Your task to perform on an android device: turn off smart reply in the gmail app Image 0: 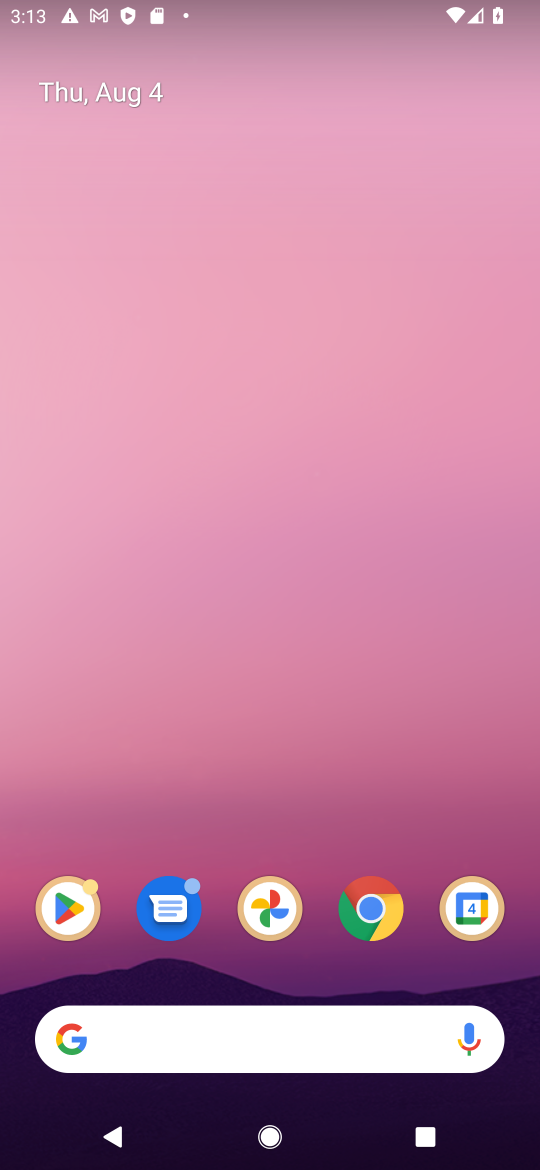
Step 0: drag from (359, 720) to (445, 85)
Your task to perform on an android device: turn off smart reply in the gmail app Image 1: 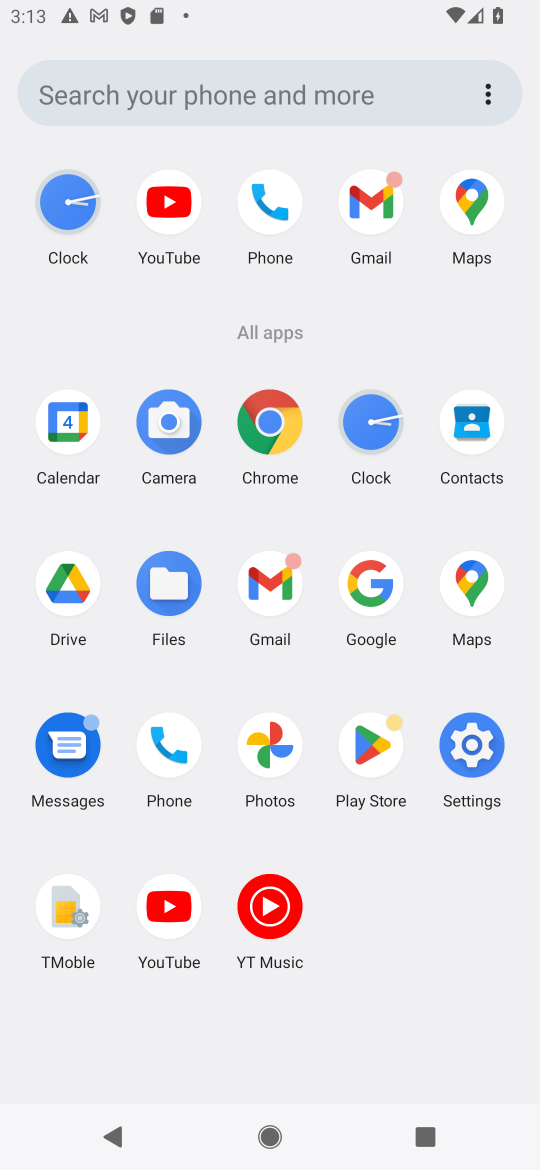
Step 1: click (369, 202)
Your task to perform on an android device: turn off smart reply in the gmail app Image 2: 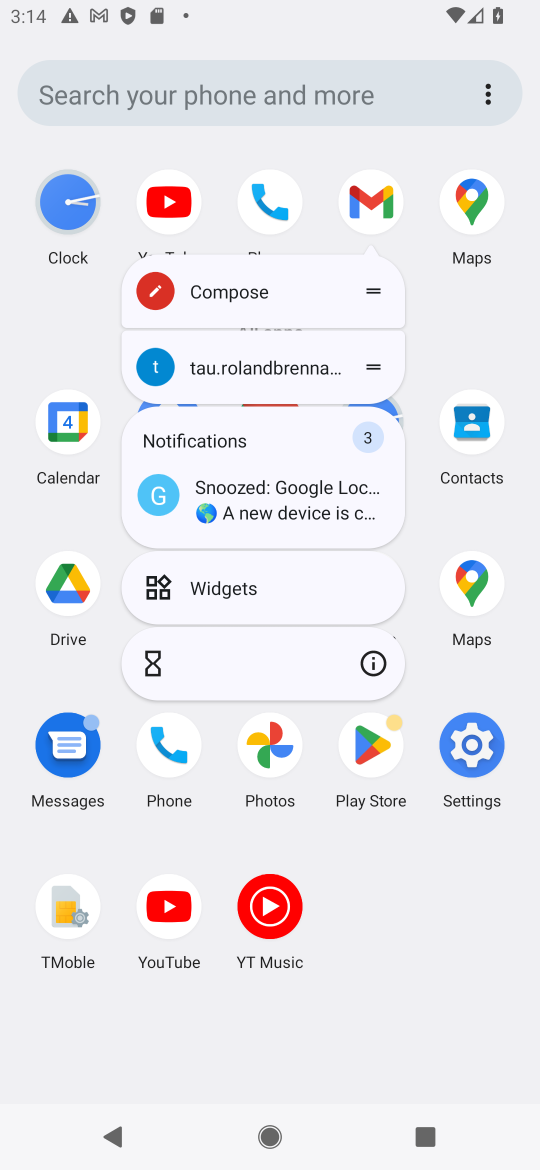
Step 2: click (375, 218)
Your task to perform on an android device: turn off smart reply in the gmail app Image 3: 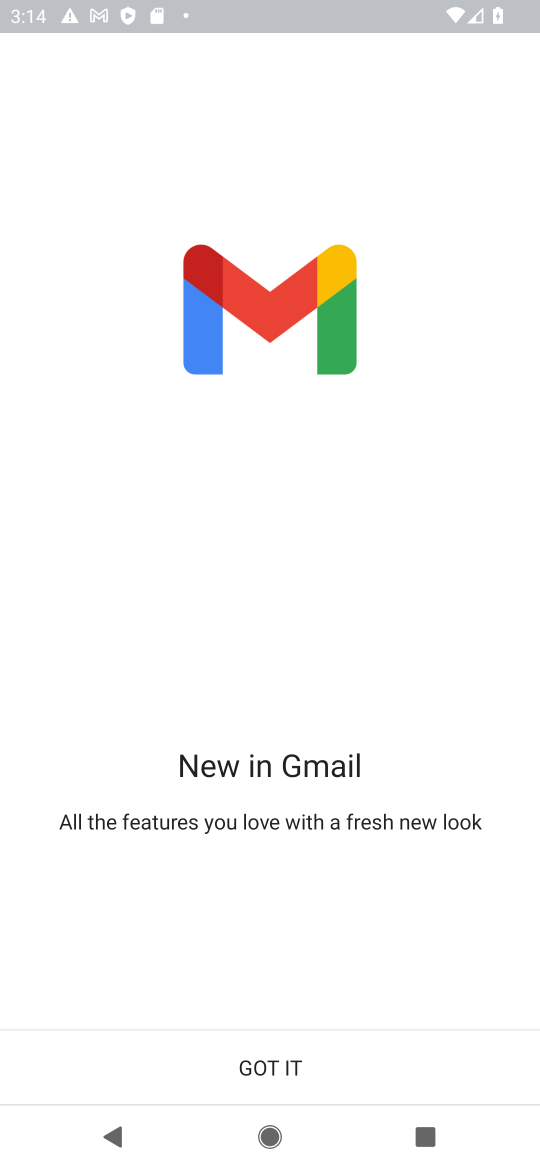
Step 3: click (220, 1085)
Your task to perform on an android device: turn off smart reply in the gmail app Image 4: 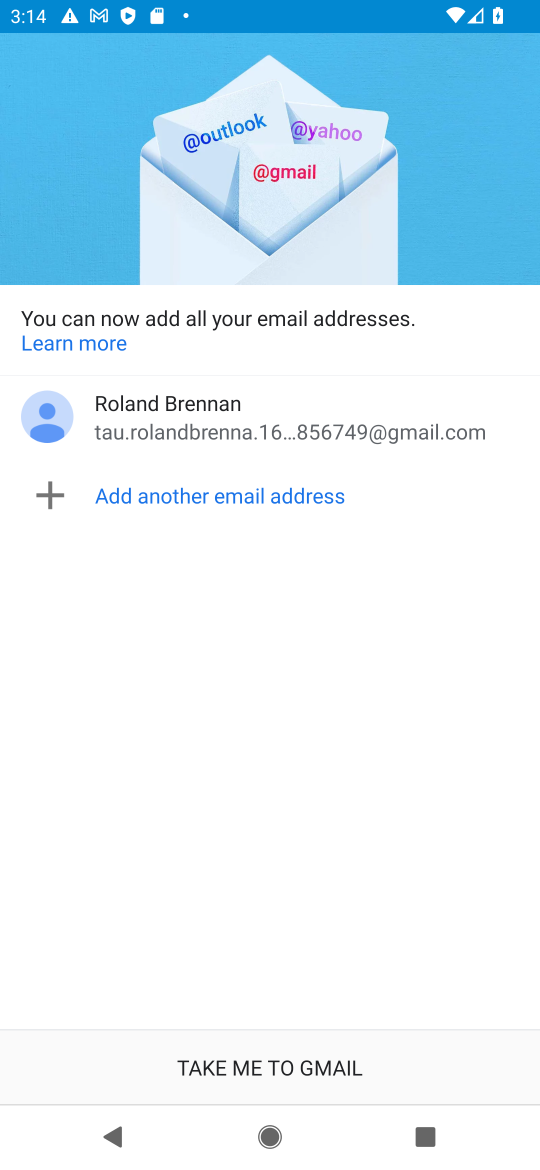
Step 4: click (219, 1083)
Your task to perform on an android device: turn off smart reply in the gmail app Image 5: 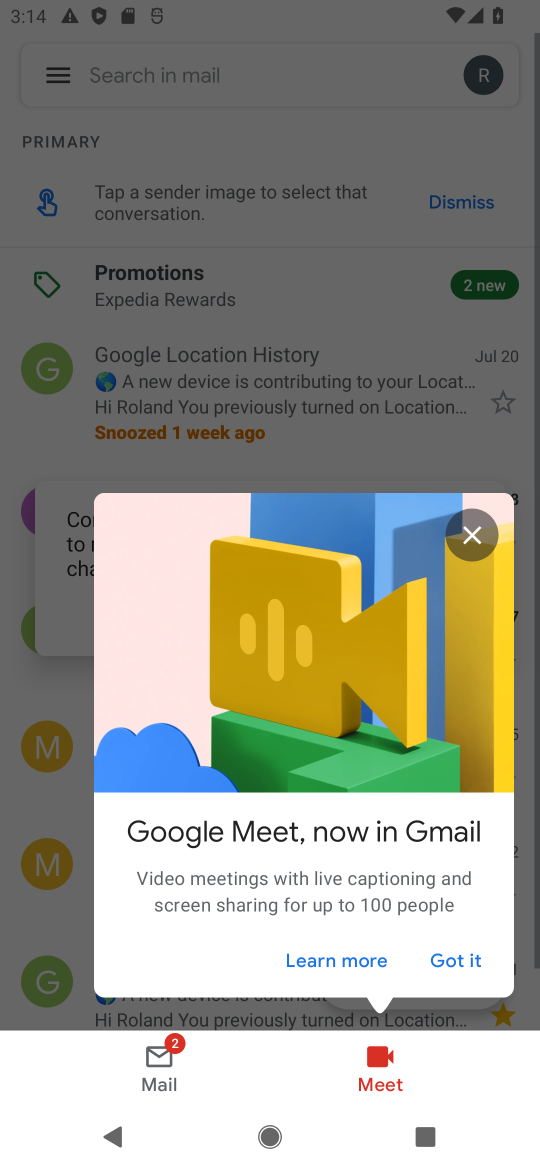
Step 5: click (470, 541)
Your task to perform on an android device: turn off smart reply in the gmail app Image 6: 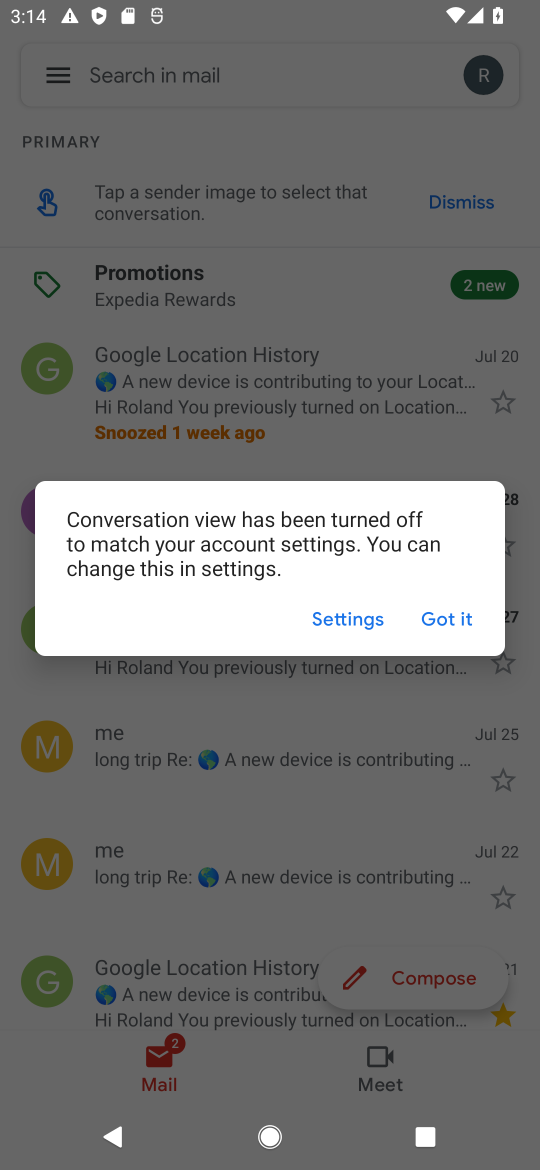
Step 6: click (438, 612)
Your task to perform on an android device: turn off smart reply in the gmail app Image 7: 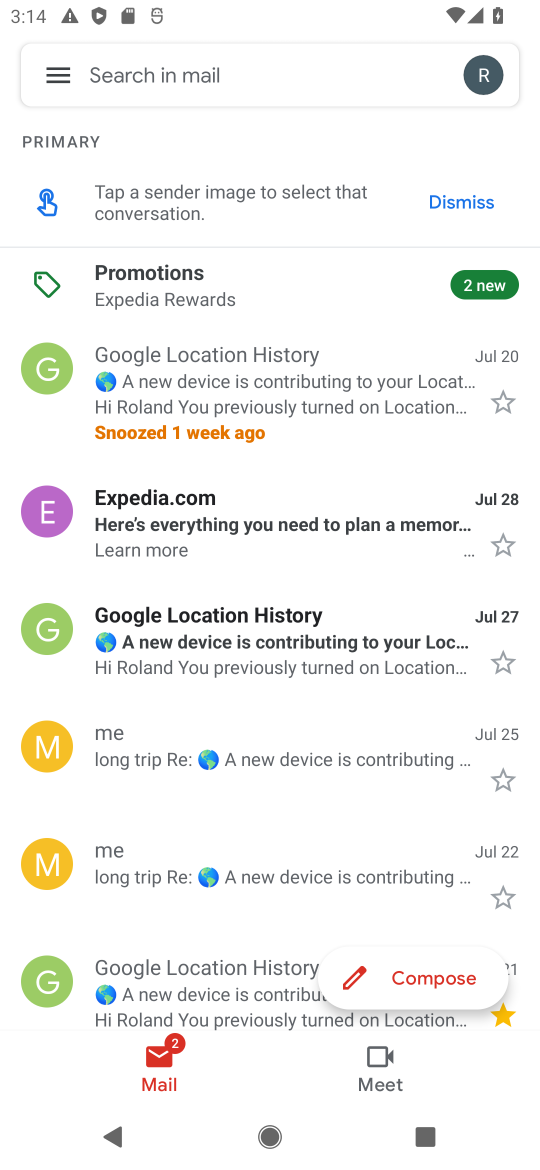
Step 7: click (48, 94)
Your task to perform on an android device: turn off smart reply in the gmail app Image 8: 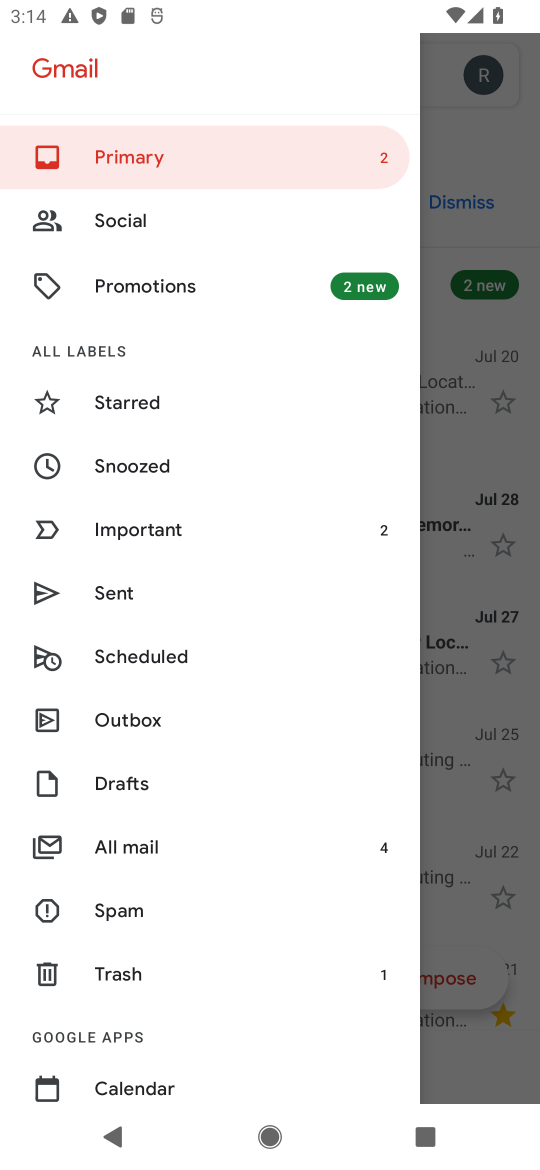
Step 8: drag from (224, 900) to (210, 436)
Your task to perform on an android device: turn off smart reply in the gmail app Image 9: 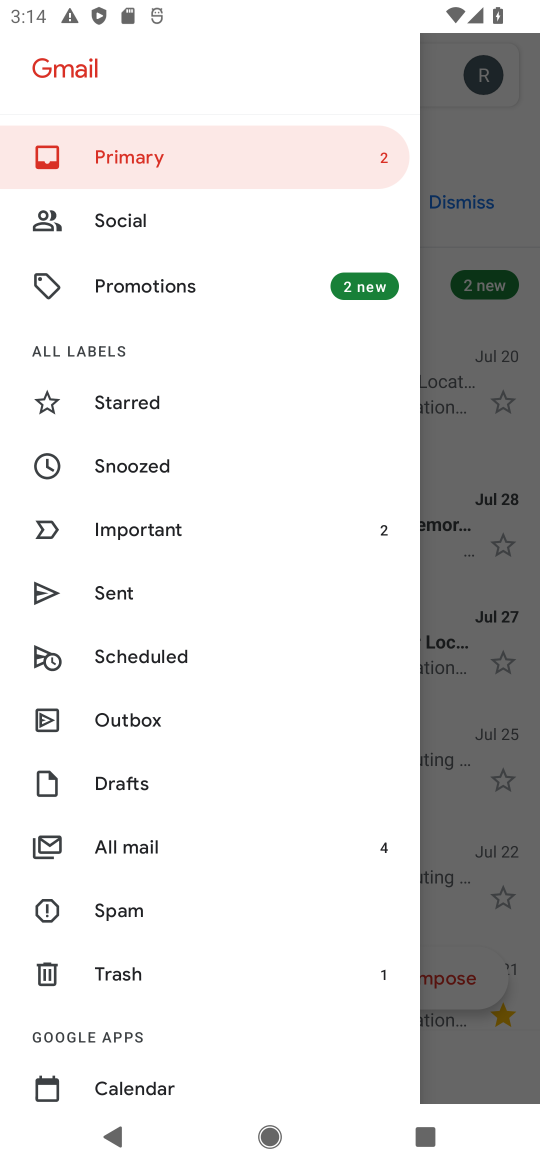
Step 9: drag from (102, 1003) to (62, 246)
Your task to perform on an android device: turn off smart reply in the gmail app Image 10: 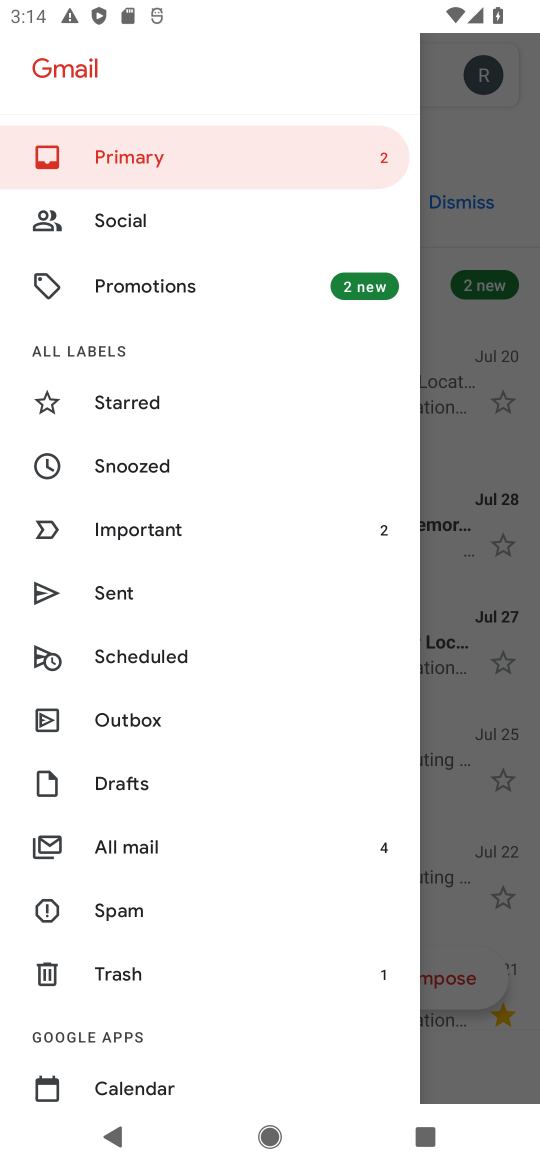
Step 10: drag from (199, 1012) to (331, 324)
Your task to perform on an android device: turn off smart reply in the gmail app Image 11: 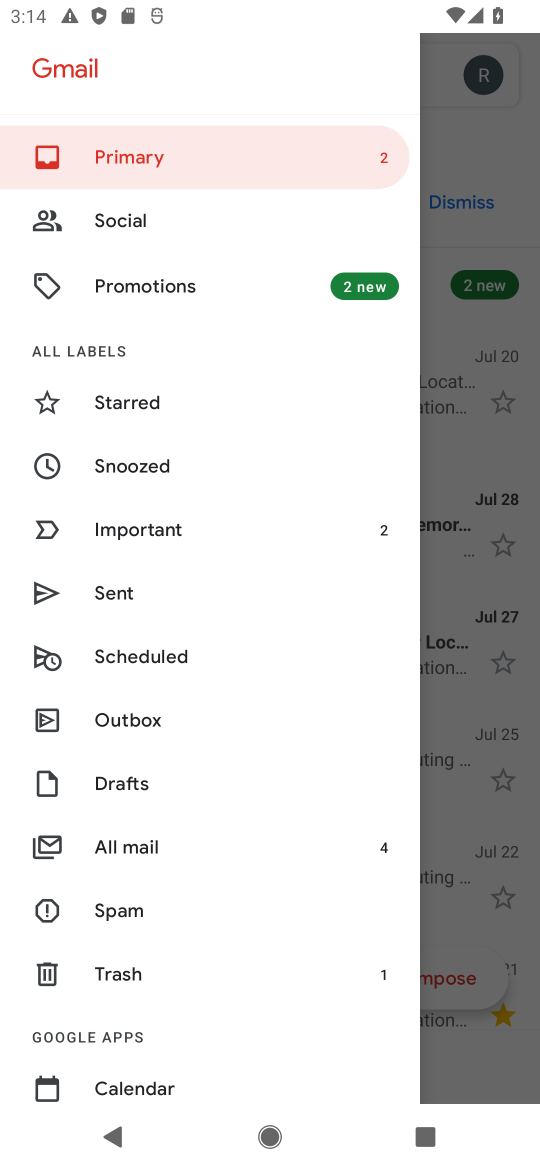
Step 11: drag from (185, 1050) to (192, 380)
Your task to perform on an android device: turn off smart reply in the gmail app Image 12: 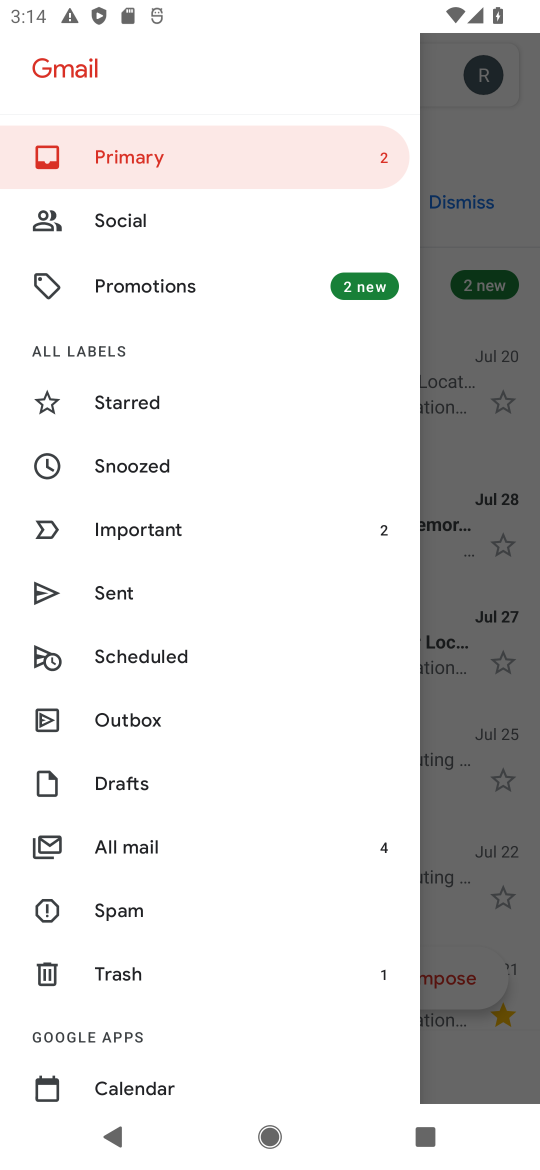
Step 12: drag from (102, 1034) to (129, 335)
Your task to perform on an android device: turn off smart reply in the gmail app Image 13: 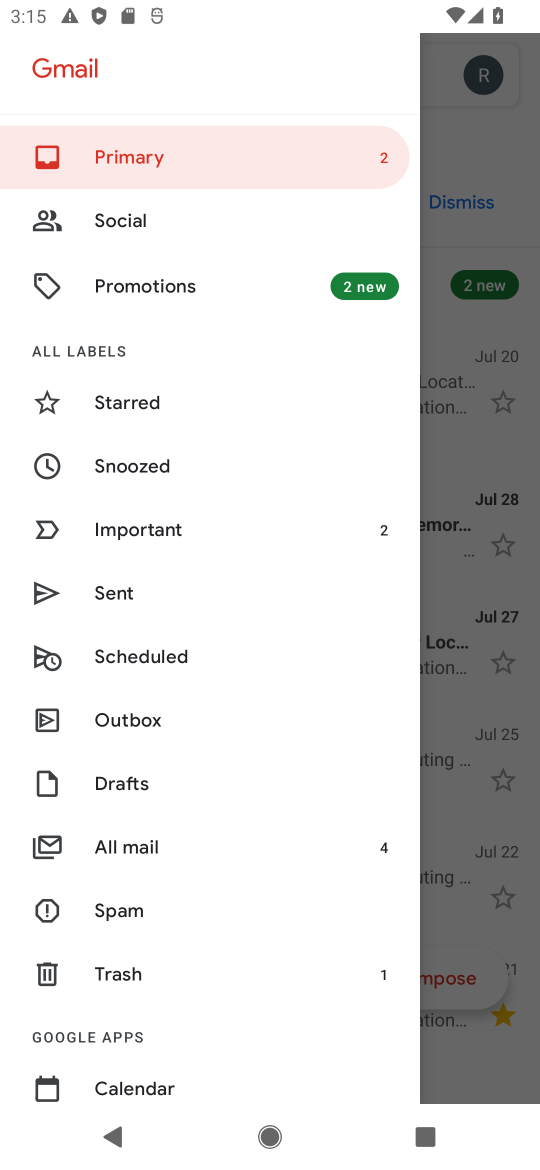
Step 13: drag from (173, 1033) to (285, 275)
Your task to perform on an android device: turn off smart reply in the gmail app Image 14: 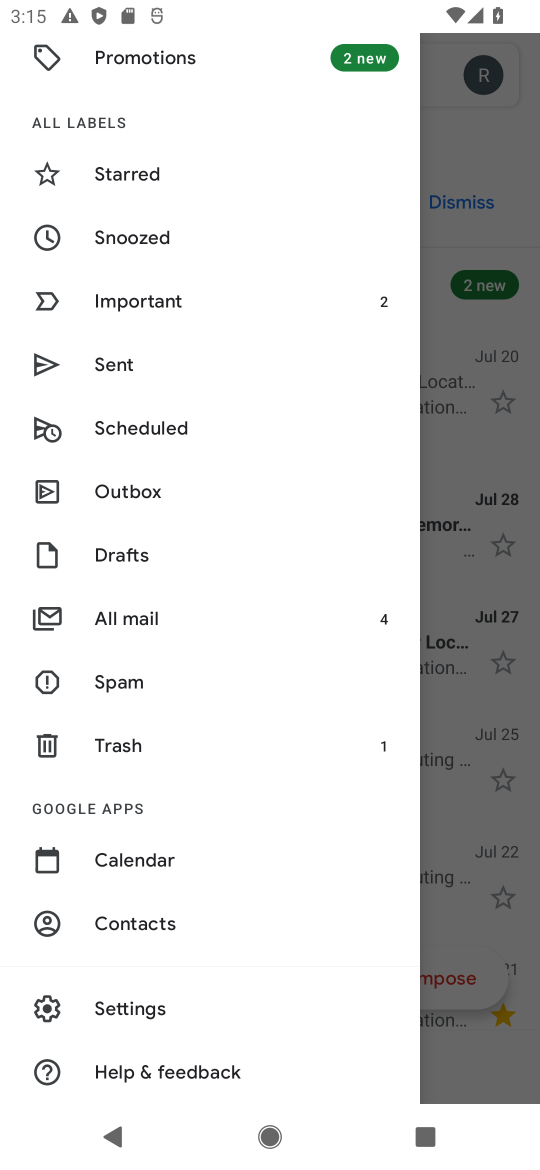
Step 14: drag from (215, 964) to (413, 110)
Your task to perform on an android device: turn off smart reply in the gmail app Image 15: 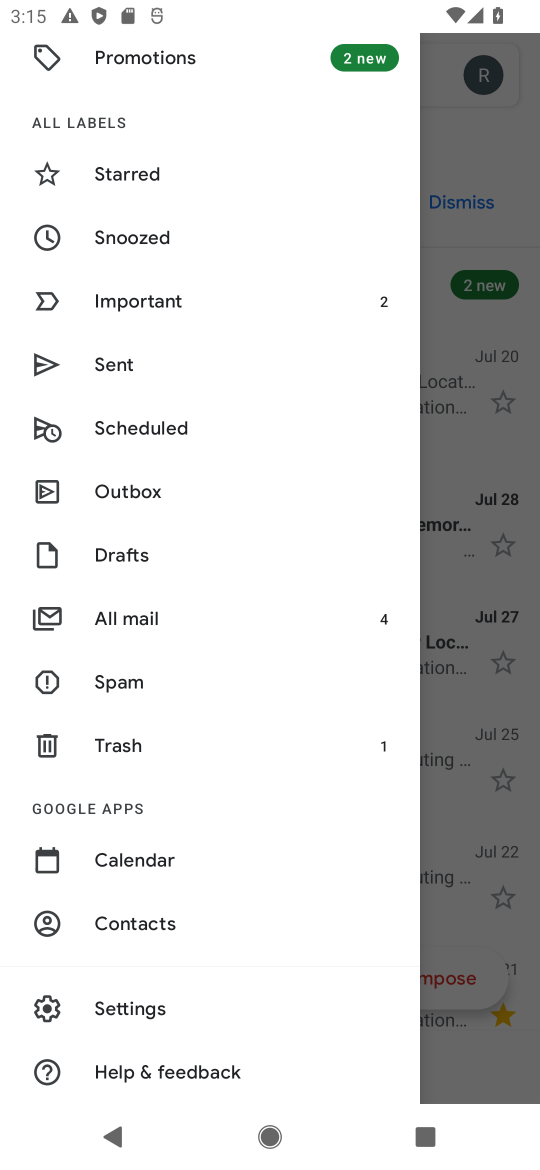
Step 15: click (156, 1008)
Your task to perform on an android device: turn off smart reply in the gmail app Image 16: 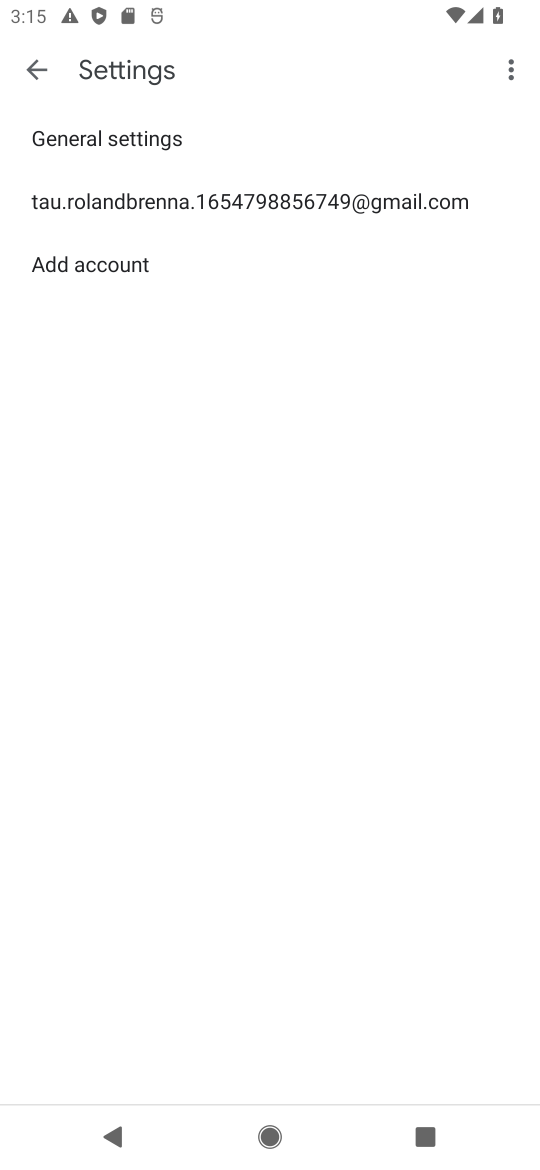
Step 16: click (159, 193)
Your task to perform on an android device: turn off smart reply in the gmail app Image 17: 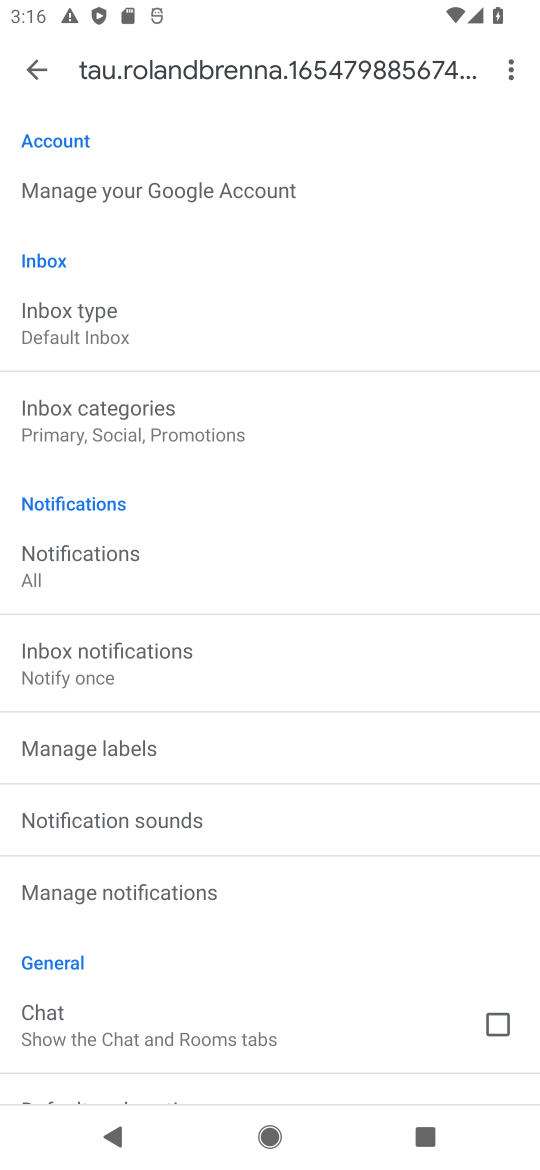
Step 17: drag from (231, 899) to (431, 149)
Your task to perform on an android device: turn off smart reply in the gmail app Image 18: 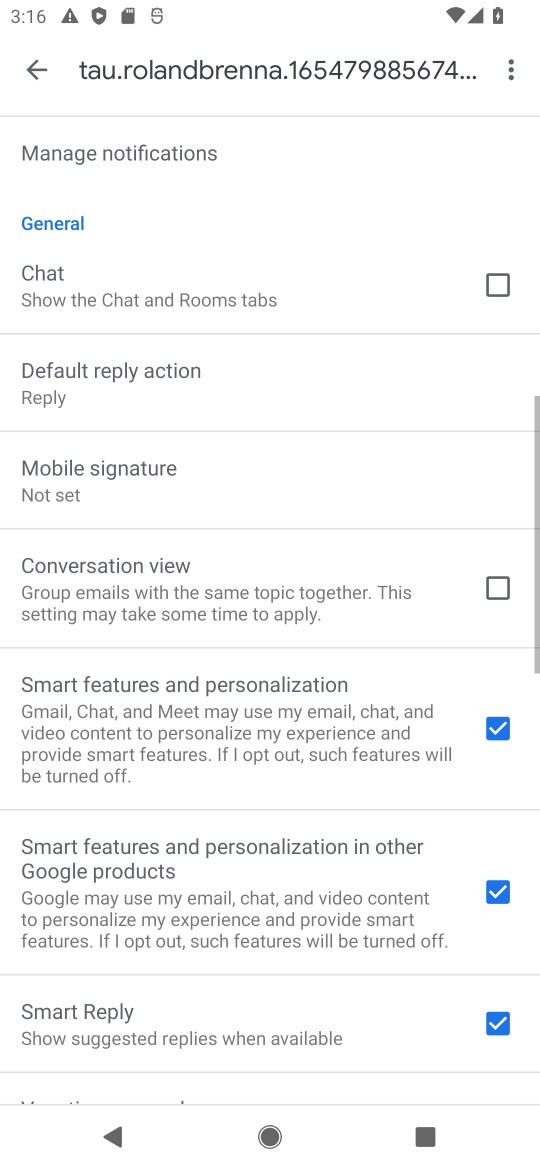
Step 18: drag from (142, 1007) to (317, 246)
Your task to perform on an android device: turn off smart reply in the gmail app Image 19: 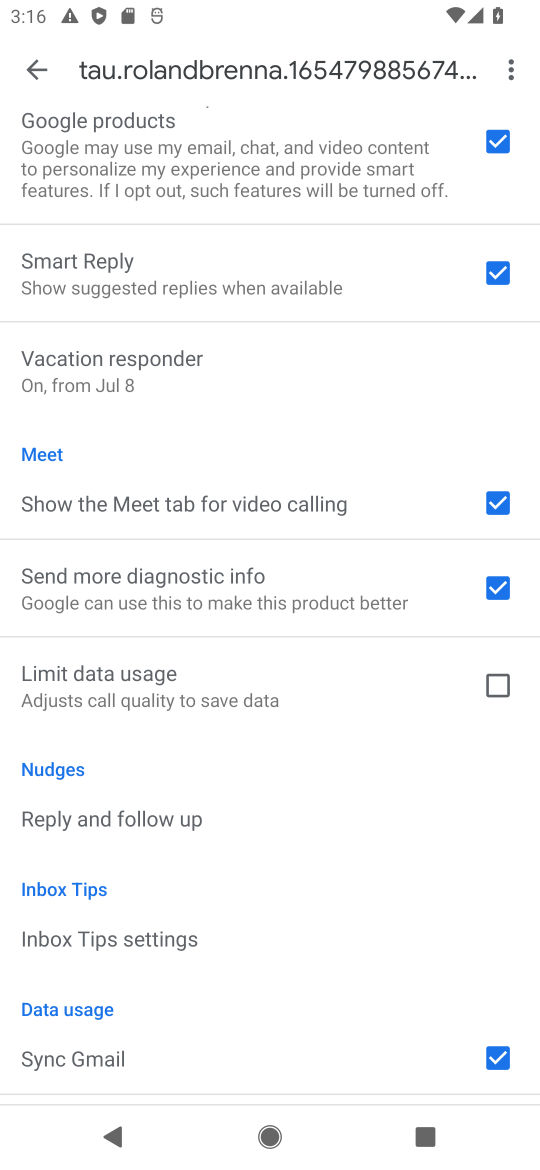
Step 19: drag from (102, 921) to (272, 260)
Your task to perform on an android device: turn off smart reply in the gmail app Image 20: 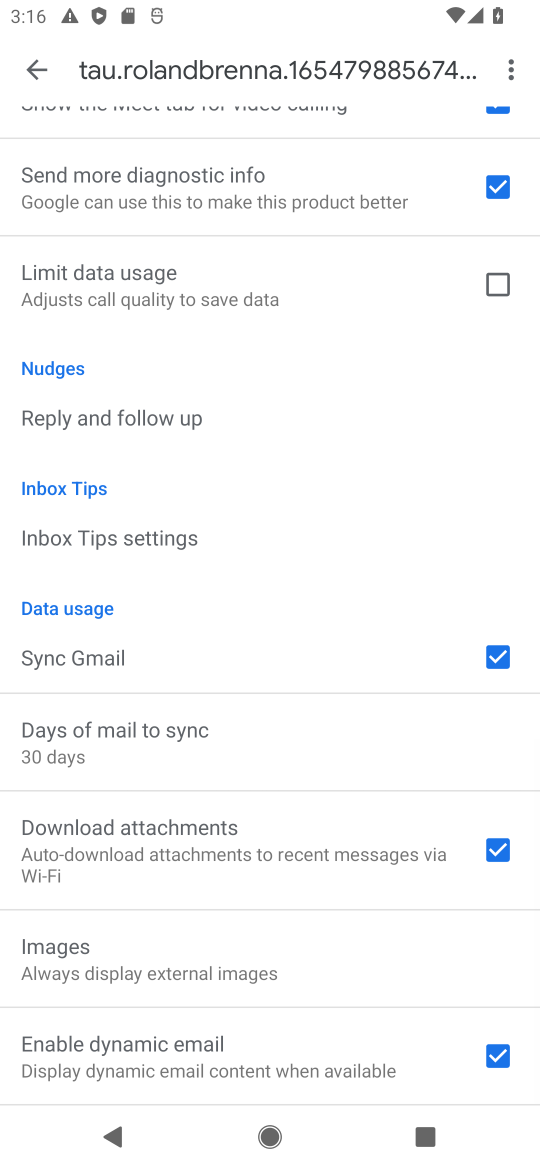
Step 20: drag from (219, 878) to (357, 285)
Your task to perform on an android device: turn off smart reply in the gmail app Image 21: 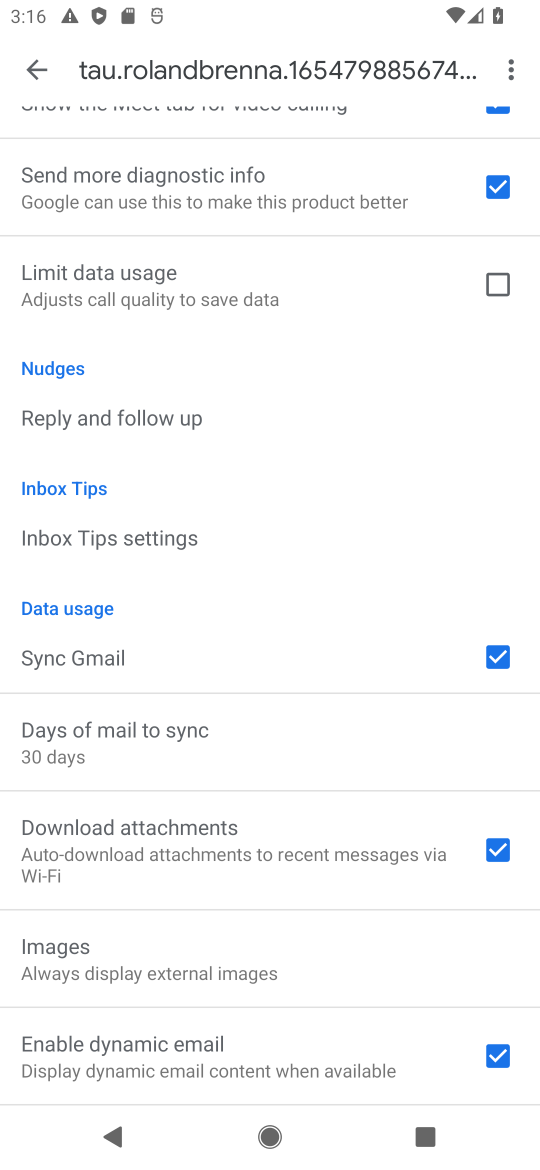
Step 21: drag from (188, 959) to (155, 354)
Your task to perform on an android device: turn off smart reply in the gmail app Image 22: 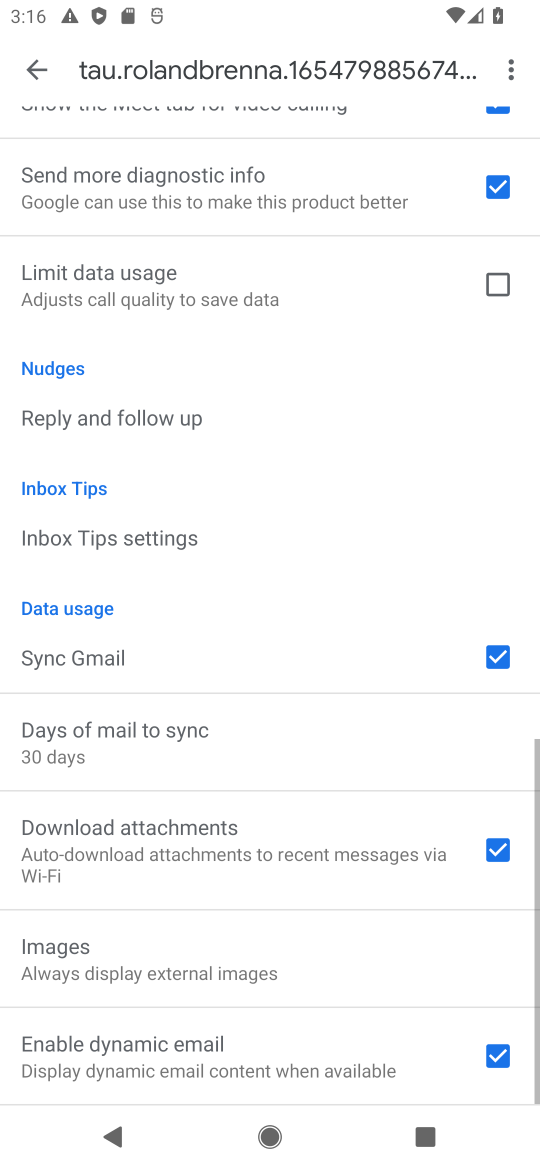
Step 22: drag from (155, 383) to (219, 1041)
Your task to perform on an android device: turn off smart reply in the gmail app Image 23: 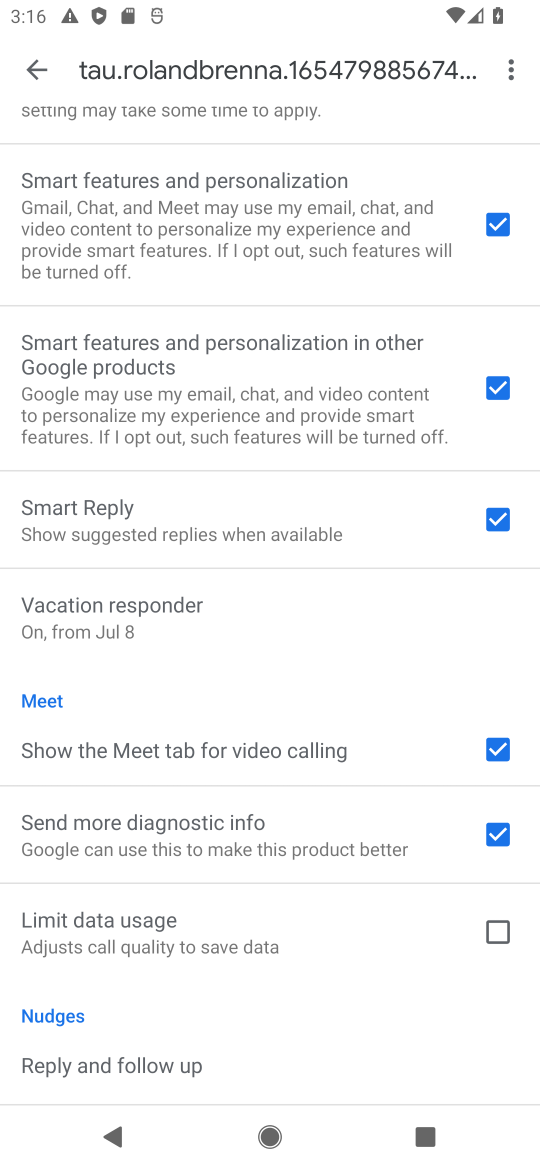
Step 23: drag from (55, 254) to (167, 885)
Your task to perform on an android device: turn off smart reply in the gmail app Image 24: 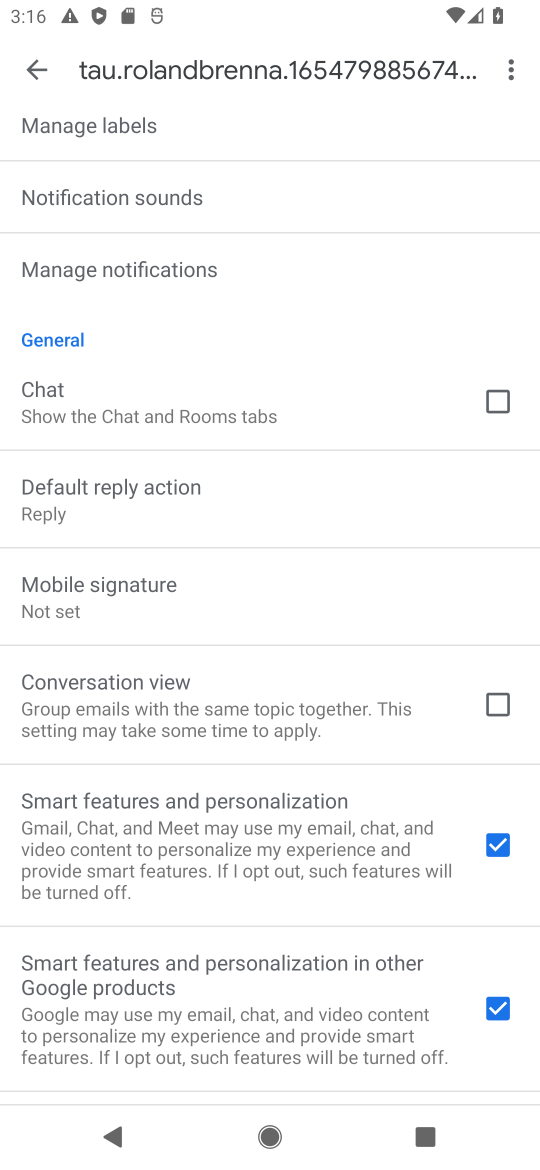
Step 24: drag from (100, 236) to (226, 1063)
Your task to perform on an android device: turn off smart reply in the gmail app Image 25: 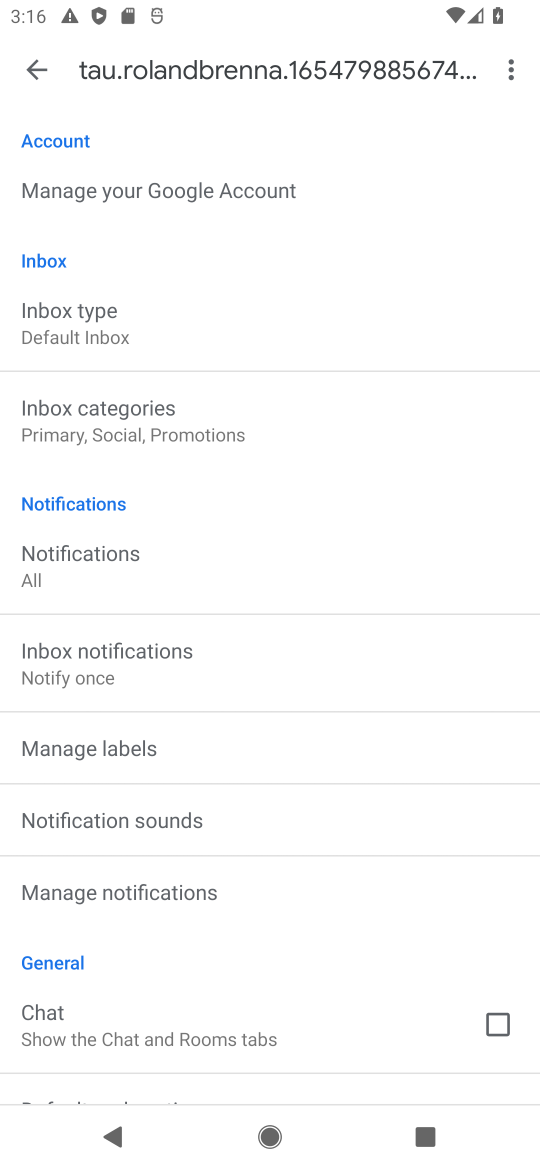
Step 25: drag from (130, 446) to (220, 1004)
Your task to perform on an android device: turn off smart reply in the gmail app Image 26: 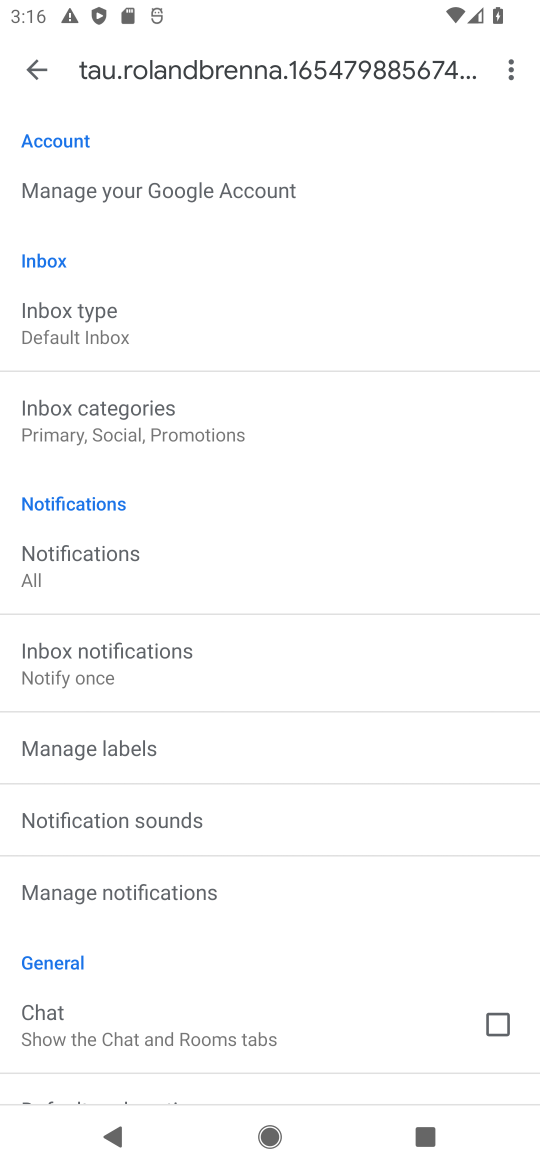
Step 26: drag from (110, 865) to (137, 221)
Your task to perform on an android device: turn off smart reply in the gmail app Image 27: 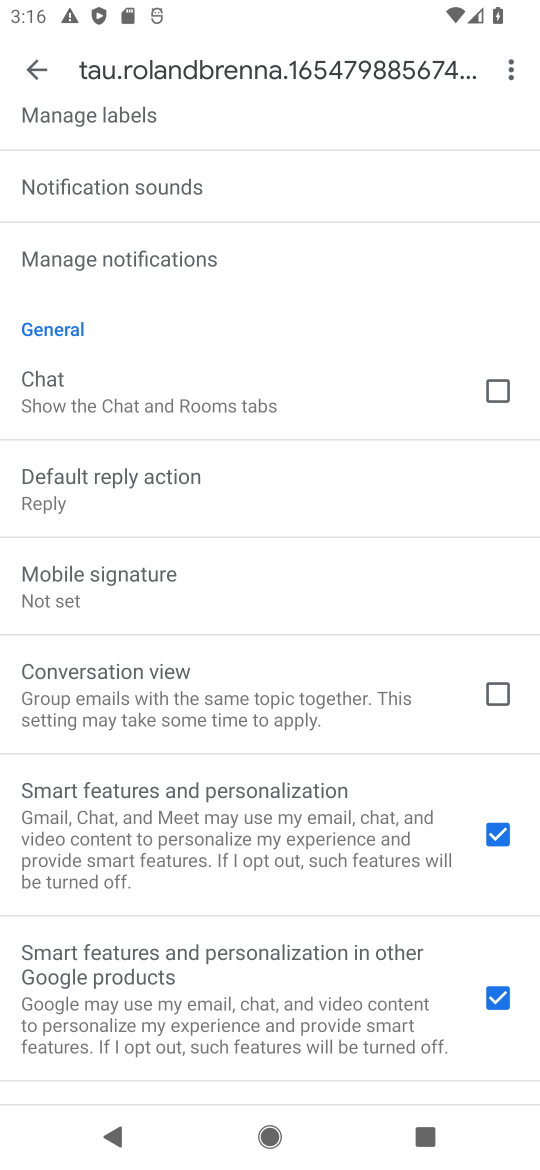
Step 27: drag from (87, 874) to (115, 168)
Your task to perform on an android device: turn off smart reply in the gmail app Image 28: 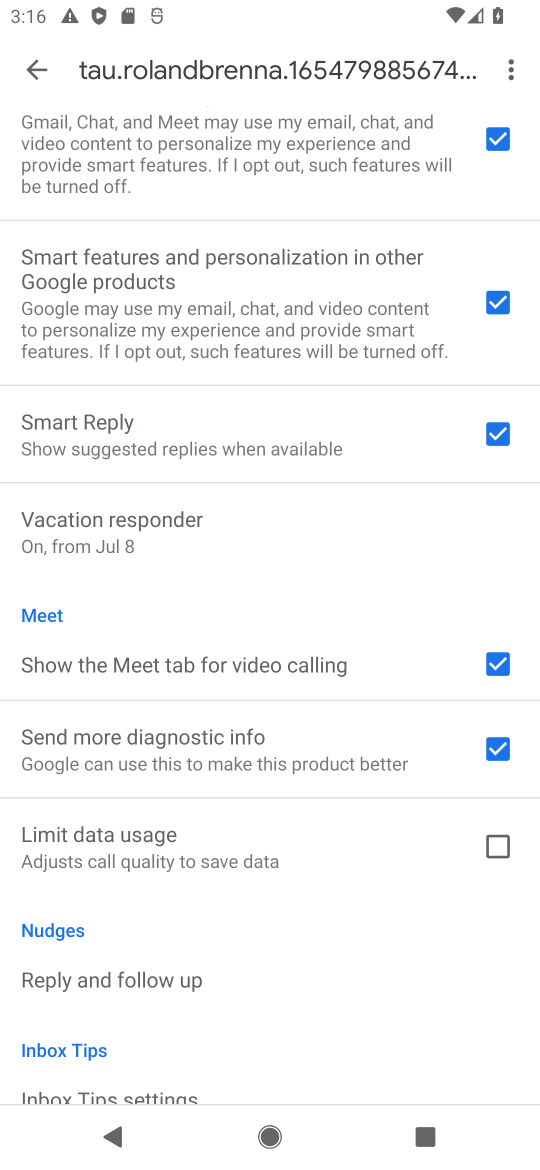
Step 28: drag from (201, 295) to (267, 781)
Your task to perform on an android device: turn off smart reply in the gmail app Image 29: 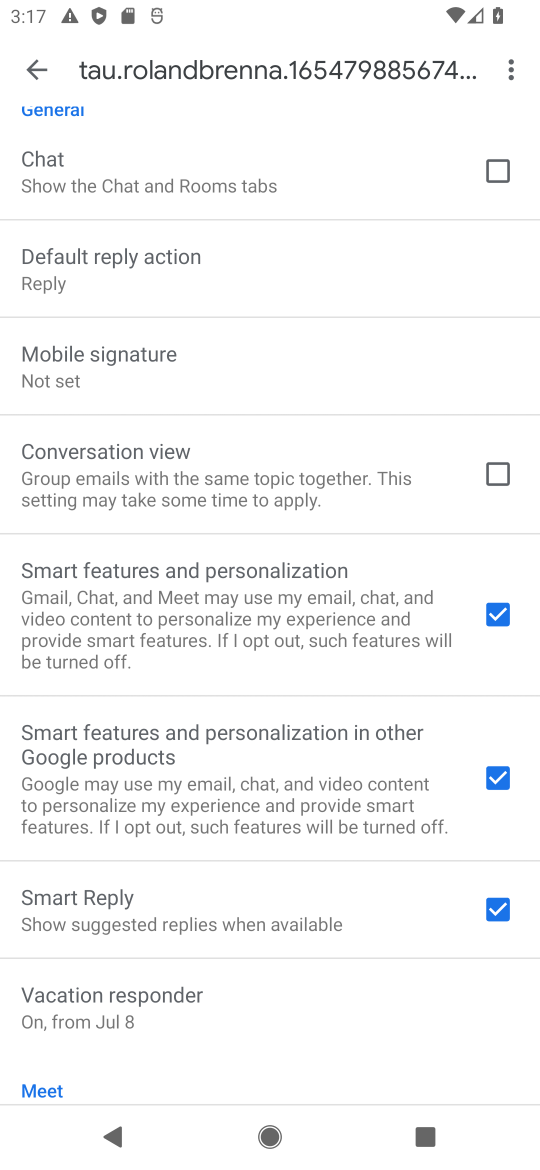
Step 29: click (502, 903)
Your task to perform on an android device: turn off smart reply in the gmail app Image 30: 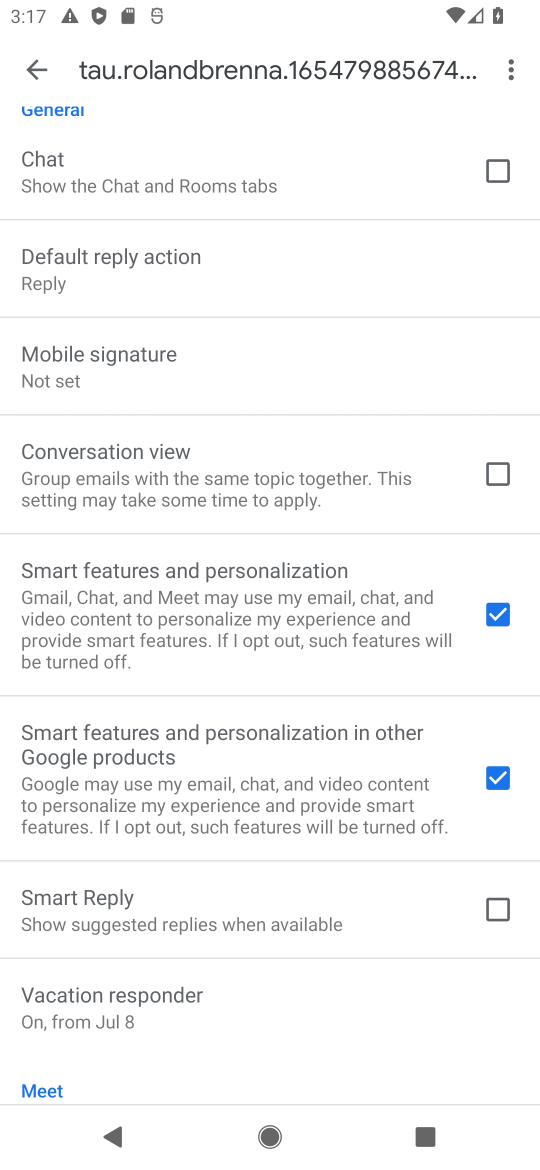
Step 30: task complete